Your task to perform on an android device: move a message to another label in the gmail app Image 0: 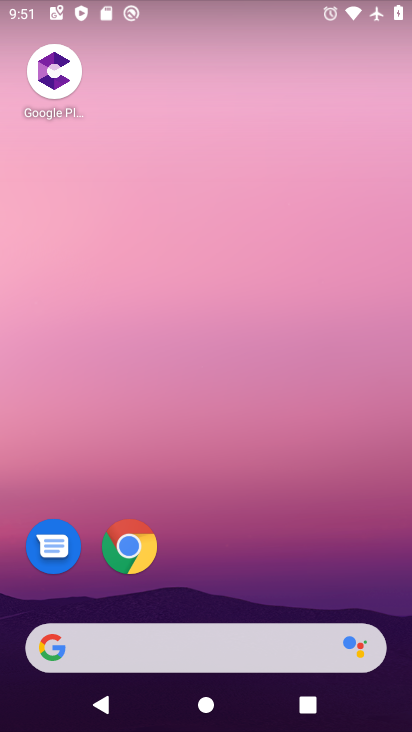
Step 0: drag from (396, 637) to (303, 89)
Your task to perform on an android device: move a message to another label in the gmail app Image 1: 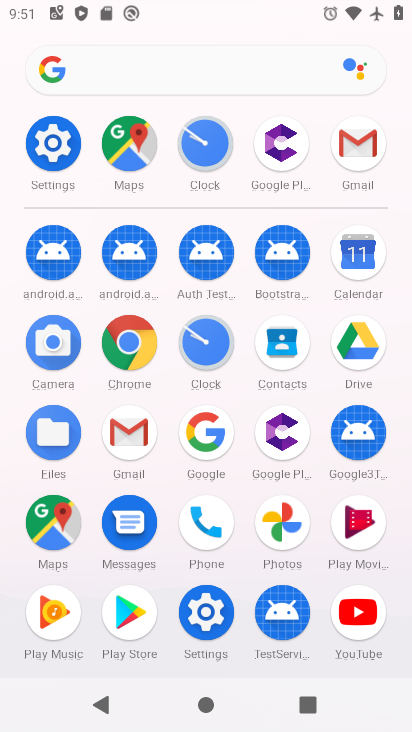
Step 1: click (128, 427)
Your task to perform on an android device: move a message to another label in the gmail app Image 2: 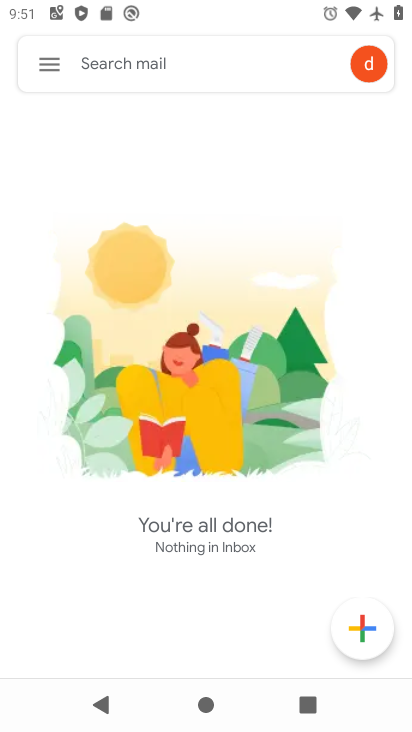
Step 2: click (44, 60)
Your task to perform on an android device: move a message to another label in the gmail app Image 3: 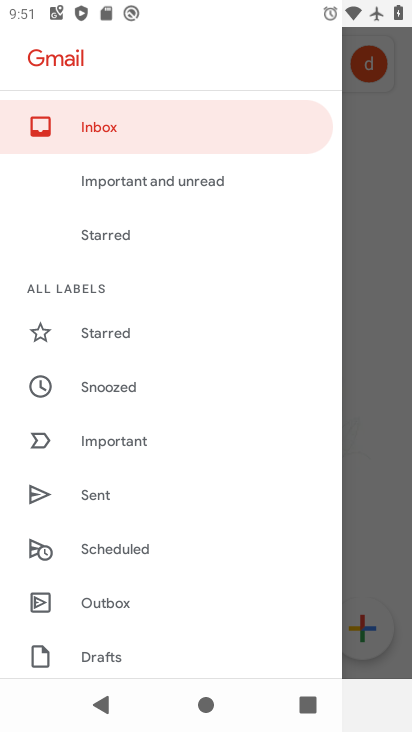
Step 3: drag from (256, 576) to (255, 118)
Your task to perform on an android device: move a message to another label in the gmail app Image 4: 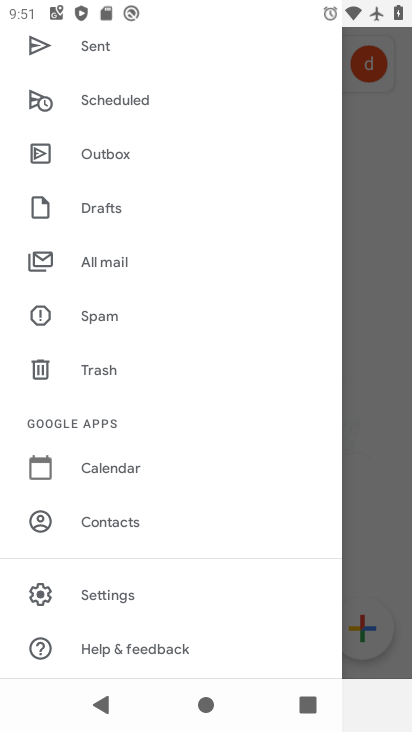
Step 4: click (93, 257)
Your task to perform on an android device: move a message to another label in the gmail app Image 5: 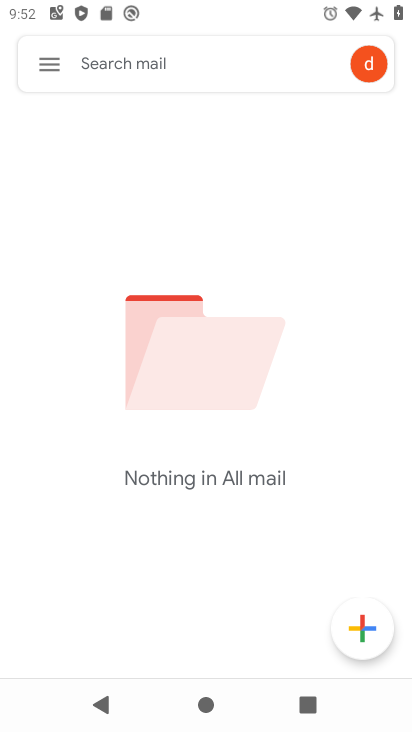
Step 5: task complete